Your task to perform on an android device: check the backup settings in the google photos Image 0: 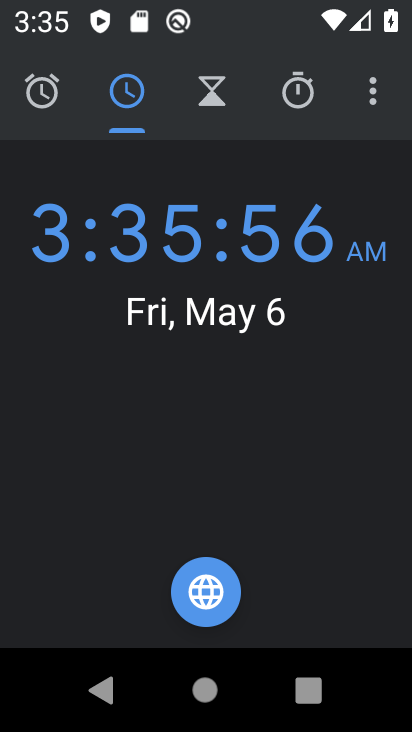
Step 0: press home button
Your task to perform on an android device: check the backup settings in the google photos Image 1: 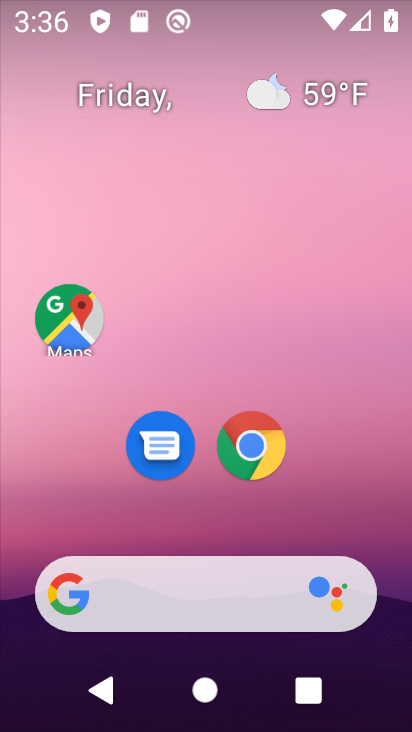
Step 1: drag from (395, 615) to (314, 36)
Your task to perform on an android device: check the backup settings in the google photos Image 2: 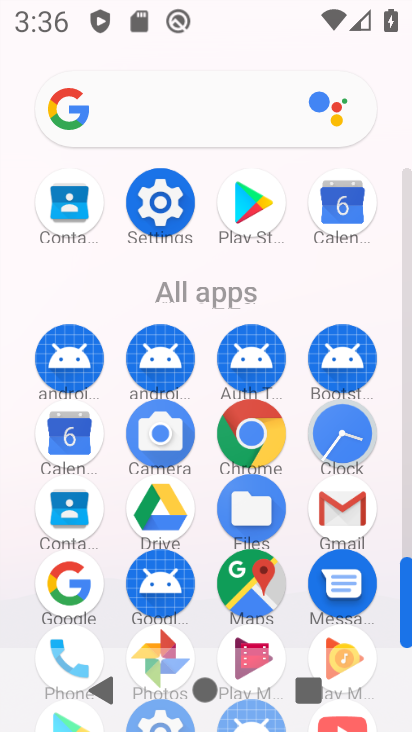
Step 2: drag from (410, 541) to (397, 392)
Your task to perform on an android device: check the backup settings in the google photos Image 3: 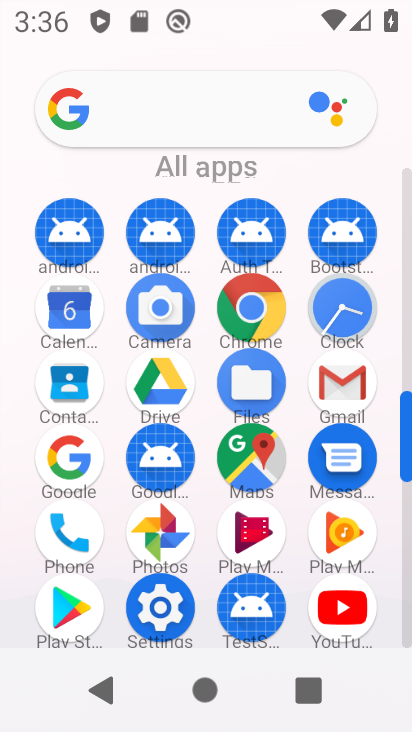
Step 3: click (160, 528)
Your task to perform on an android device: check the backup settings in the google photos Image 4: 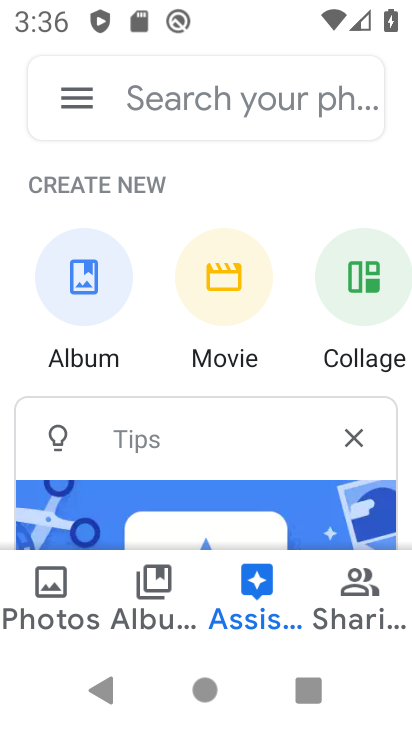
Step 4: click (82, 102)
Your task to perform on an android device: check the backup settings in the google photos Image 5: 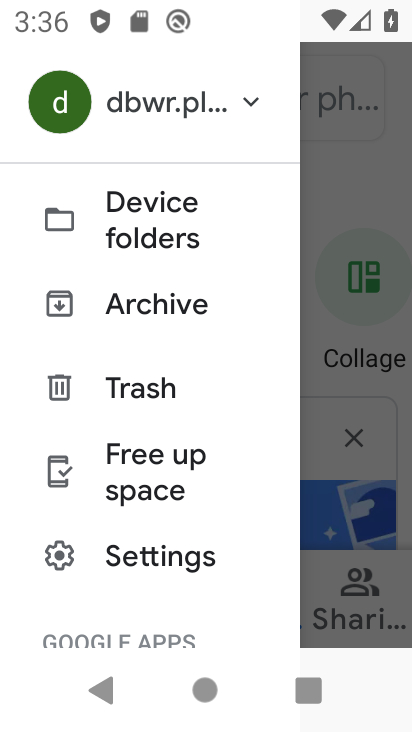
Step 5: click (153, 561)
Your task to perform on an android device: check the backup settings in the google photos Image 6: 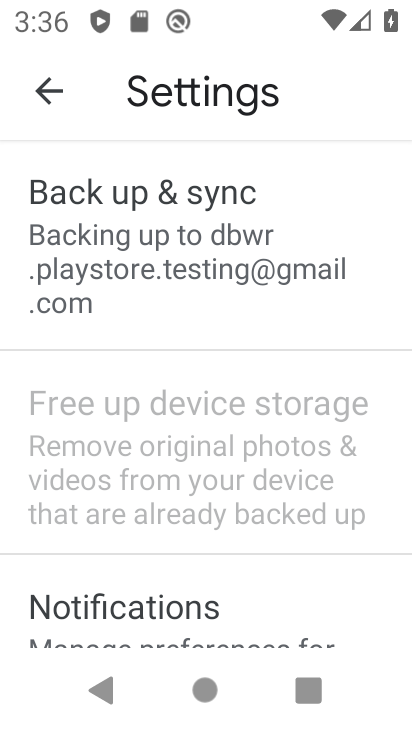
Step 6: click (91, 206)
Your task to perform on an android device: check the backup settings in the google photos Image 7: 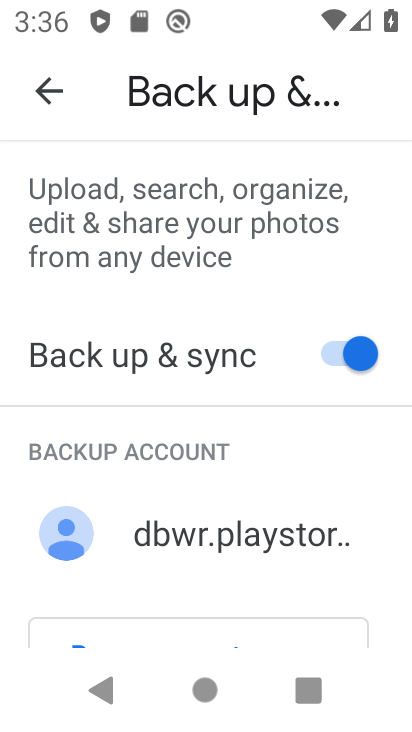
Step 7: task complete